Your task to perform on an android device: make emails show in primary in the gmail app Image 0: 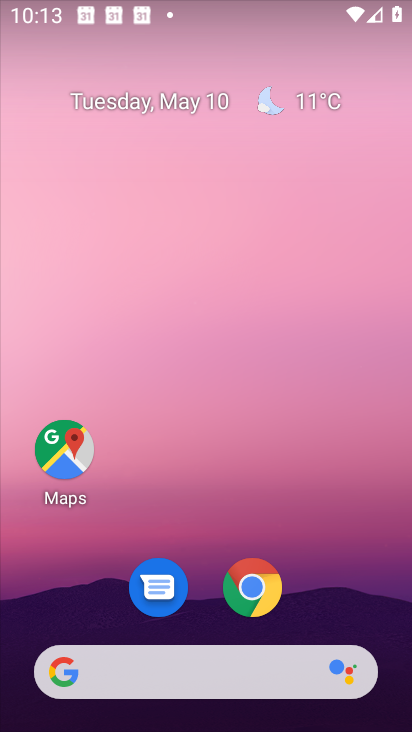
Step 0: press home button
Your task to perform on an android device: make emails show in primary in the gmail app Image 1: 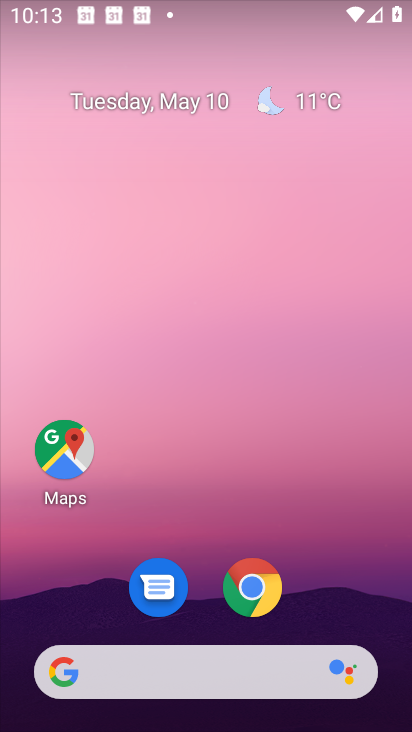
Step 1: drag from (345, 570) to (308, 226)
Your task to perform on an android device: make emails show in primary in the gmail app Image 2: 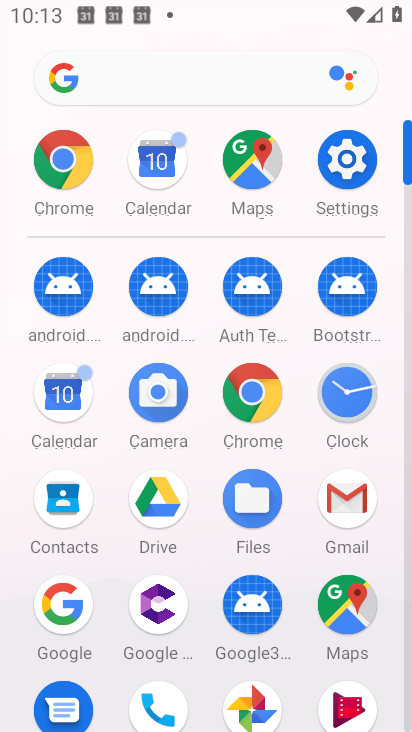
Step 2: click (353, 486)
Your task to perform on an android device: make emails show in primary in the gmail app Image 3: 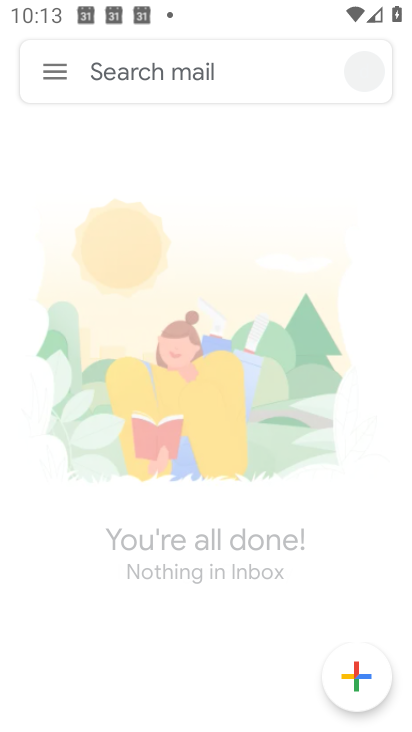
Step 3: click (37, 45)
Your task to perform on an android device: make emails show in primary in the gmail app Image 4: 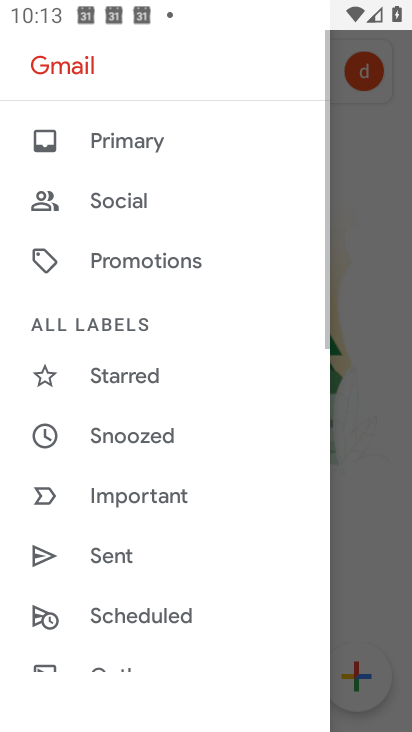
Step 4: click (132, 137)
Your task to perform on an android device: make emails show in primary in the gmail app Image 5: 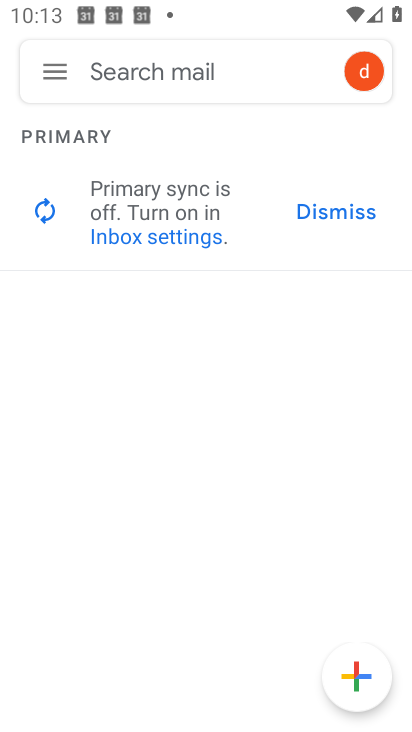
Step 5: task complete